Your task to perform on an android device: toggle wifi Image 0: 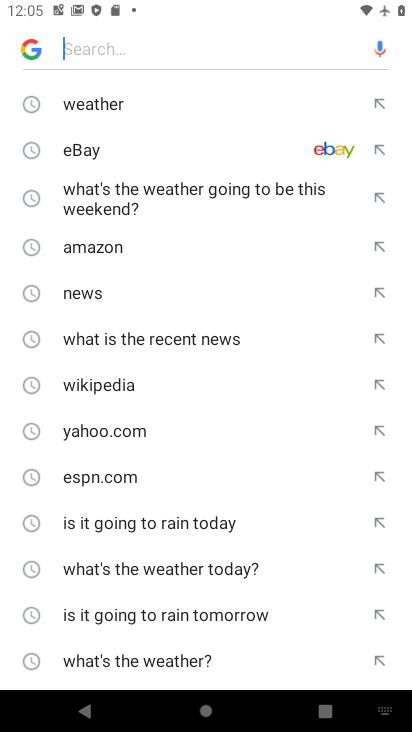
Step 0: press home button
Your task to perform on an android device: toggle wifi Image 1: 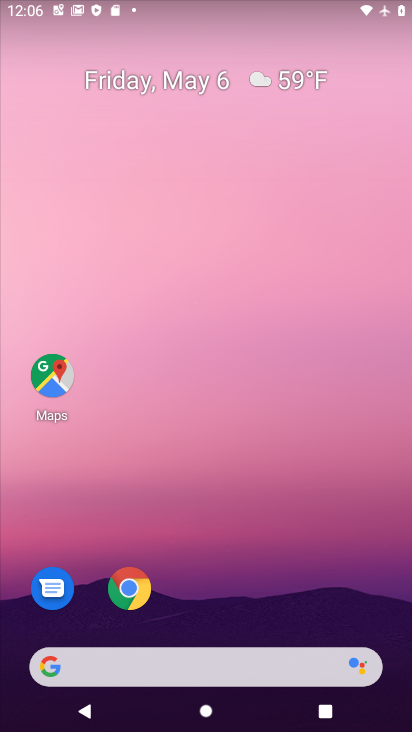
Step 1: drag from (172, 662) to (359, 174)
Your task to perform on an android device: toggle wifi Image 2: 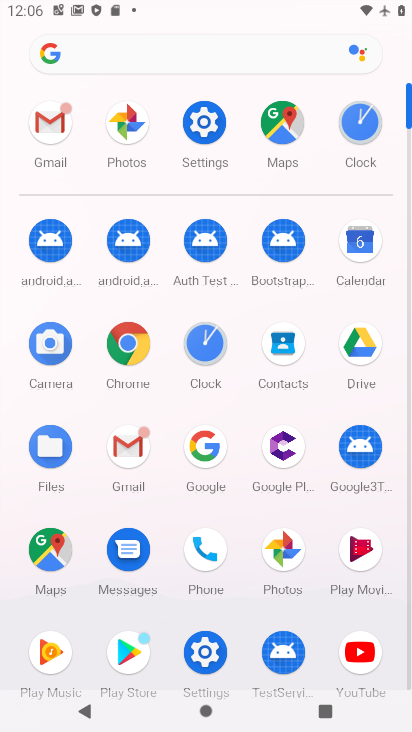
Step 2: click (208, 129)
Your task to perform on an android device: toggle wifi Image 3: 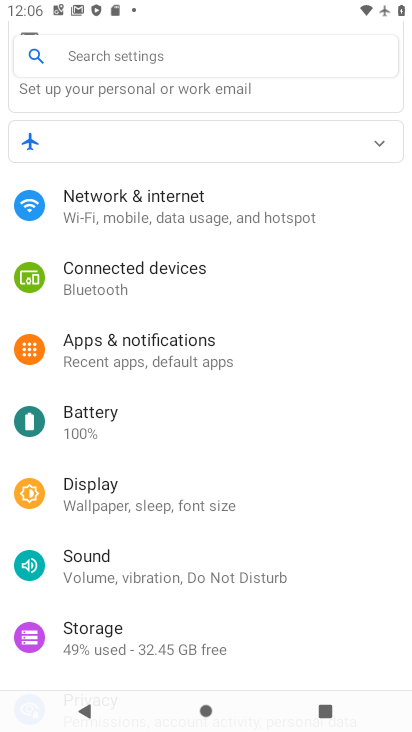
Step 3: click (165, 187)
Your task to perform on an android device: toggle wifi Image 4: 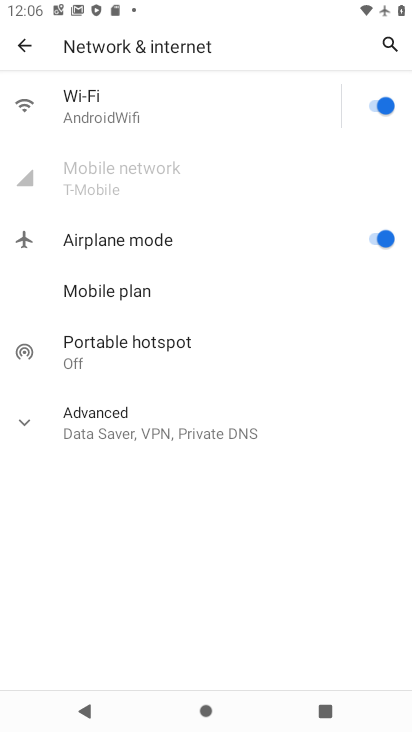
Step 4: click (376, 104)
Your task to perform on an android device: toggle wifi Image 5: 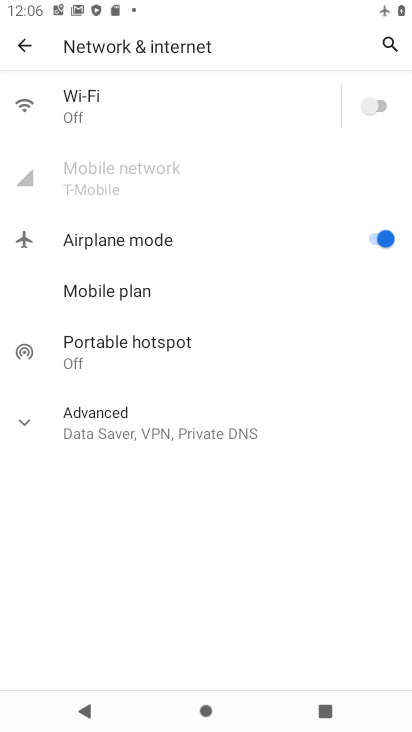
Step 5: task complete